Your task to perform on an android device: Set the phone to "Do not disturb". Image 0: 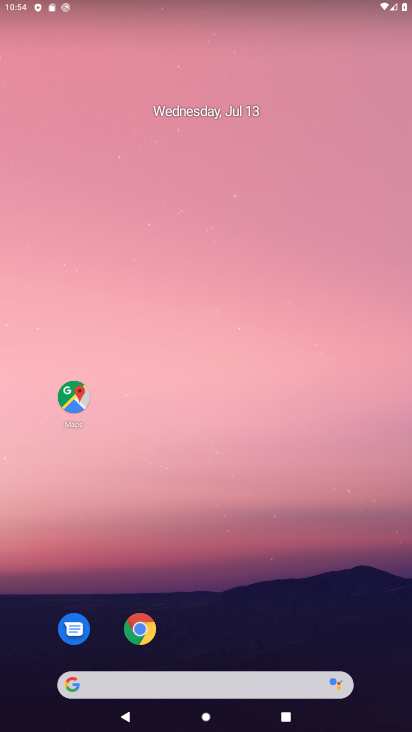
Step 0: drag from (385, 628) to (341, 67)
Your task to perform on an android device: Set the phone to "Do not disturb". Image 1: 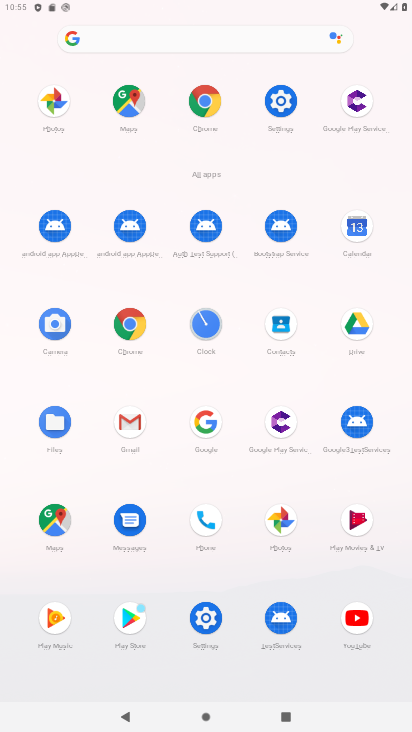
Step 1: click (288, 99)
Your task to perform on an android device: Set the phone to "Do not disturb". Image 2: 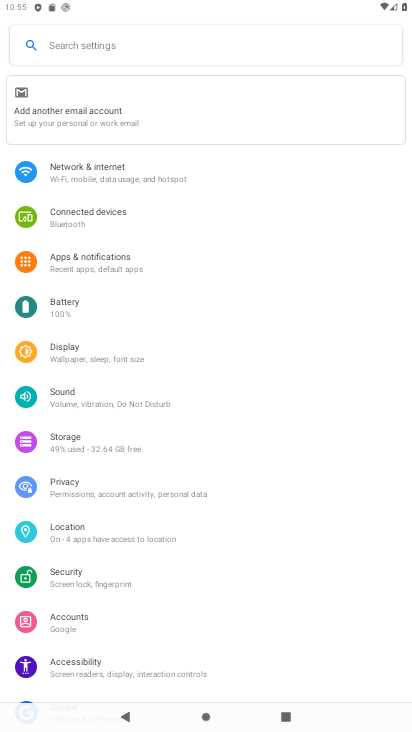
Step 2: click (65, 388)
Your task to perform on an android device: Set the phone to "Do not disturb". Image 3: 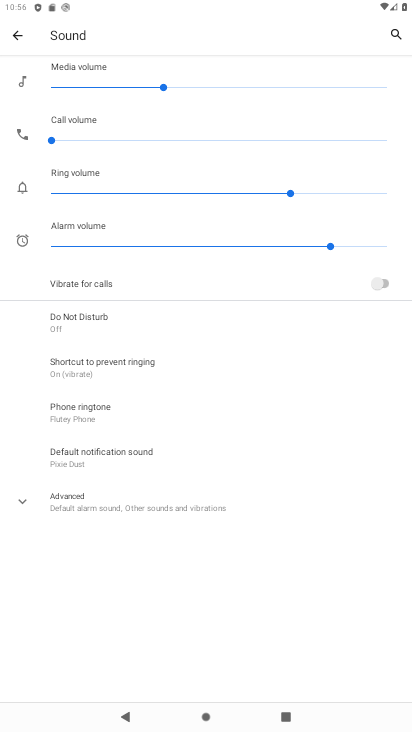
Step 3: click (69, 318)
Your task to perform on an android device: Set the phone to "Do not disturb". Image 4: 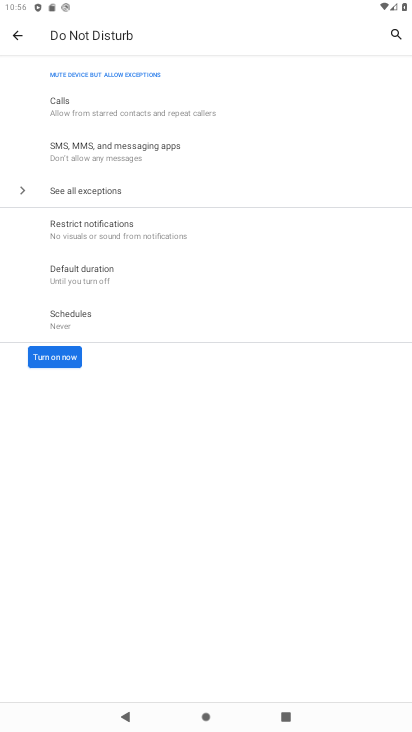
Step 4: click (65, 358)
Your task to perform on an android device: Set the phone to "Do not disturb". Image 5: 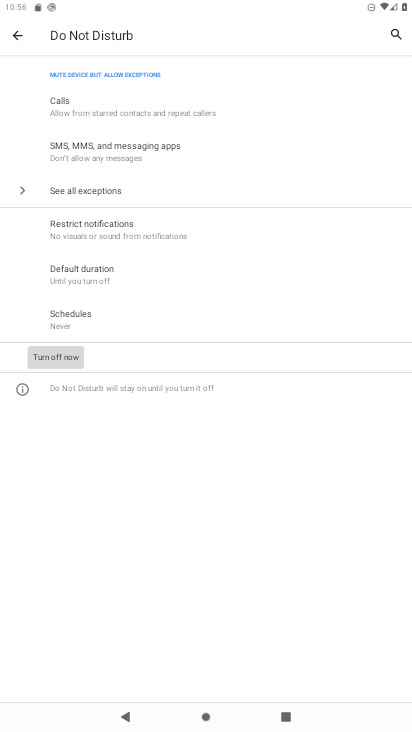
Step 5: task complete